Your task to perform on an android device: Search for Italian restaurants on Maps Image 0: 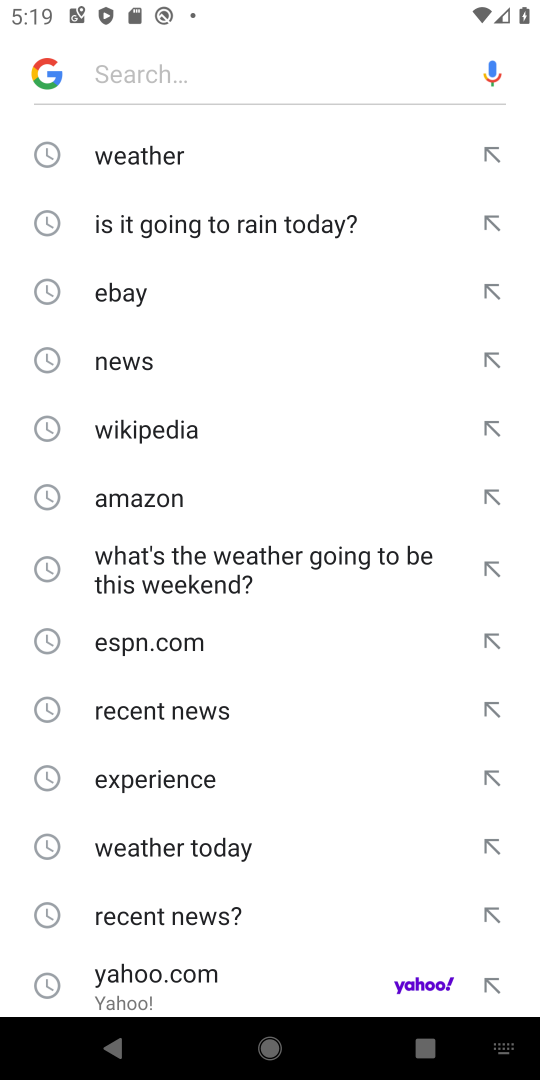
Step 0: press home button
Your task to perform on an android device: Search for Italian restaurants on Maps Image 1: 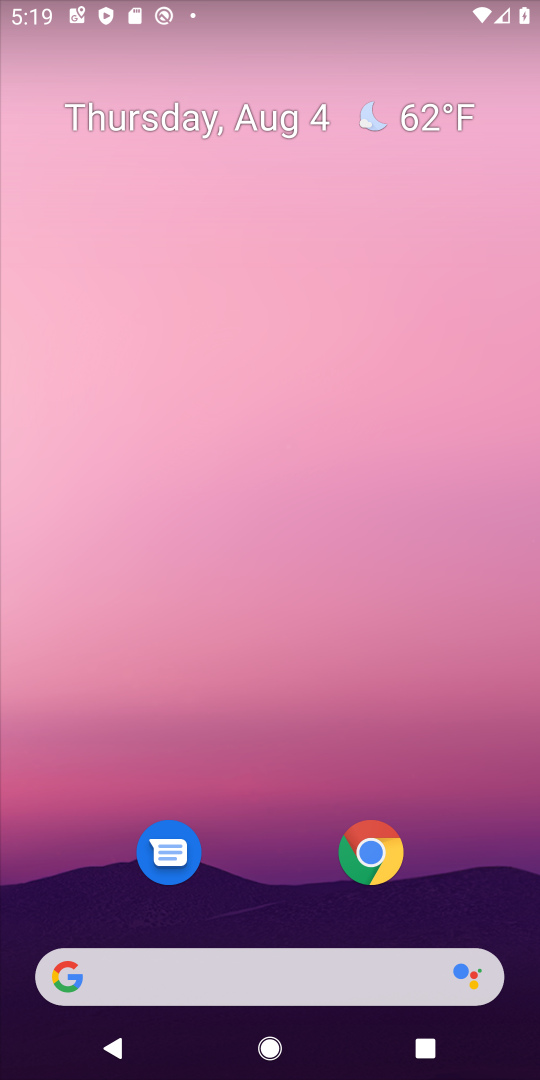
Step 1: click (288, 177)
Your task to perform on an android device: Search for Italian restaurants on Maps Image 2: 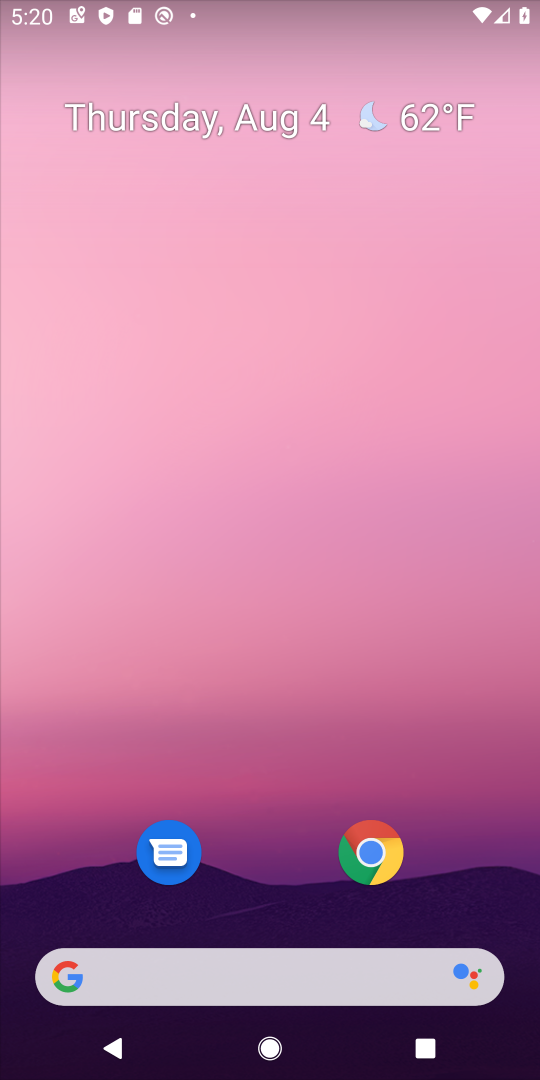
Step 2: drag from (278, 925) to (242, 319)
Your task to perform on an android device: Search for Italian restaurants on Maps Image 3: 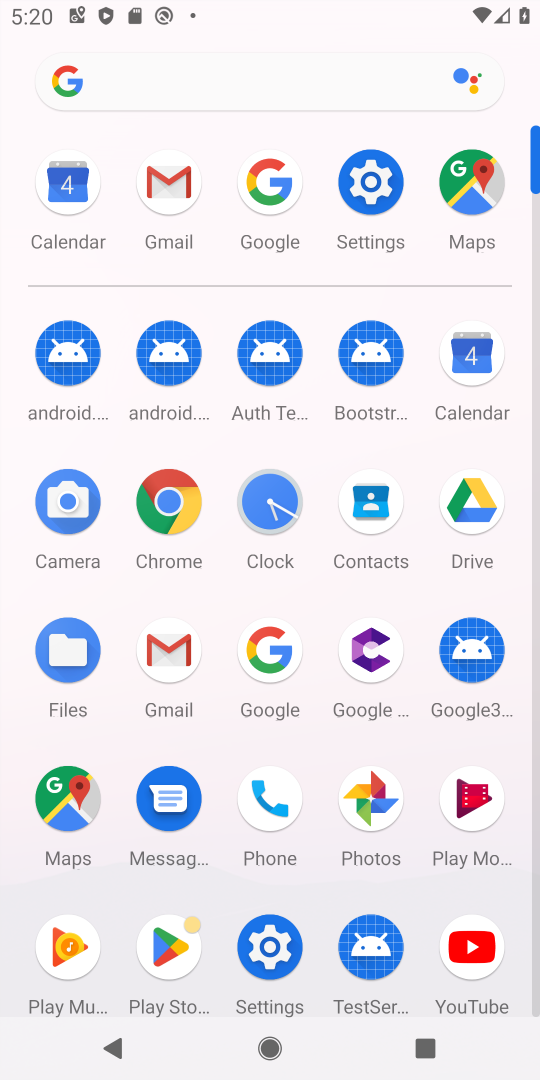
Step 3: click (63, 792)
Your task to perform on an android device: Search for Italian restaurants on Maps Image 4: 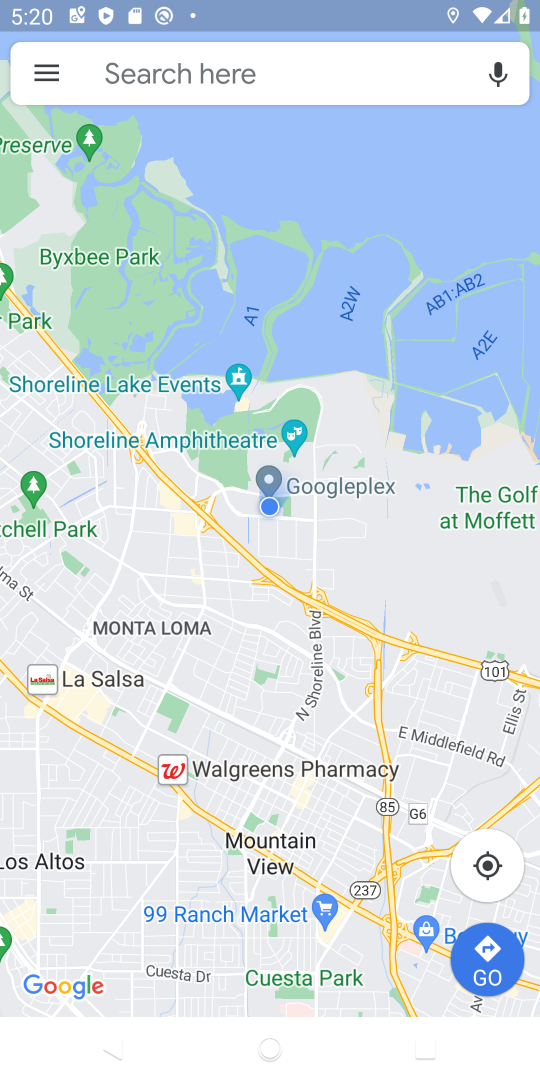
Step 4: click (222, 68)
Your task to perform on an android device: Search for Italian restaurants on Maps Image 5: 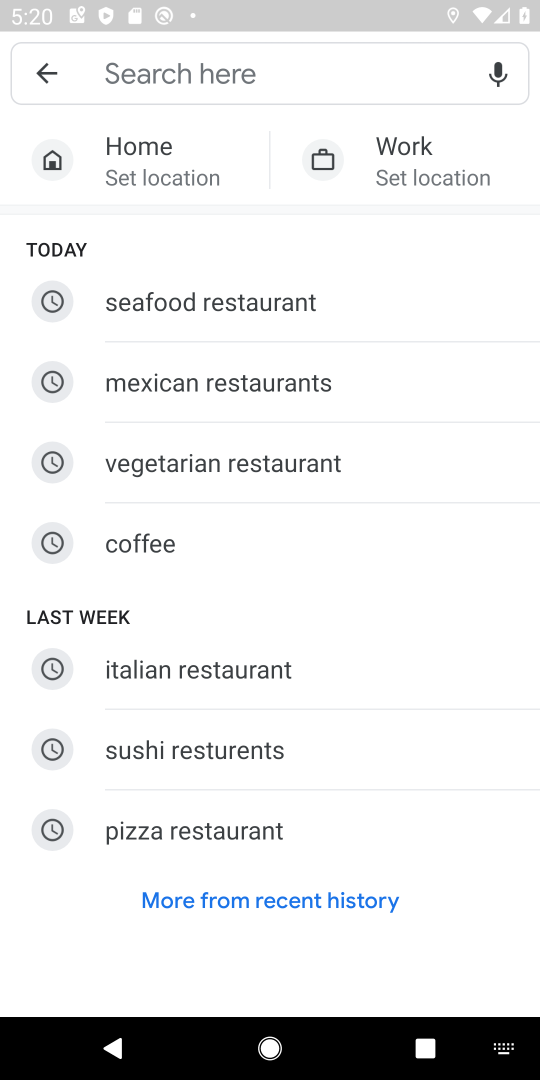
Step 5: type "Italian restaurants"
Your task to perform on an android device: Search for Italian restaurants on Maps Image 6: 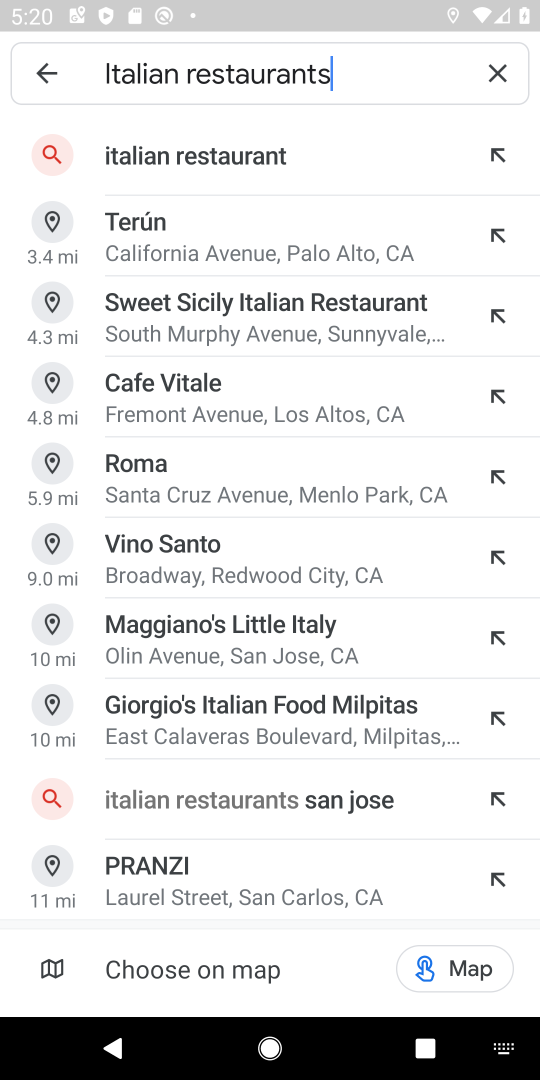
Step 6: click (247, 157)
Your task to perform on an android device: Search for Italian restaurants on Maps Image 7: 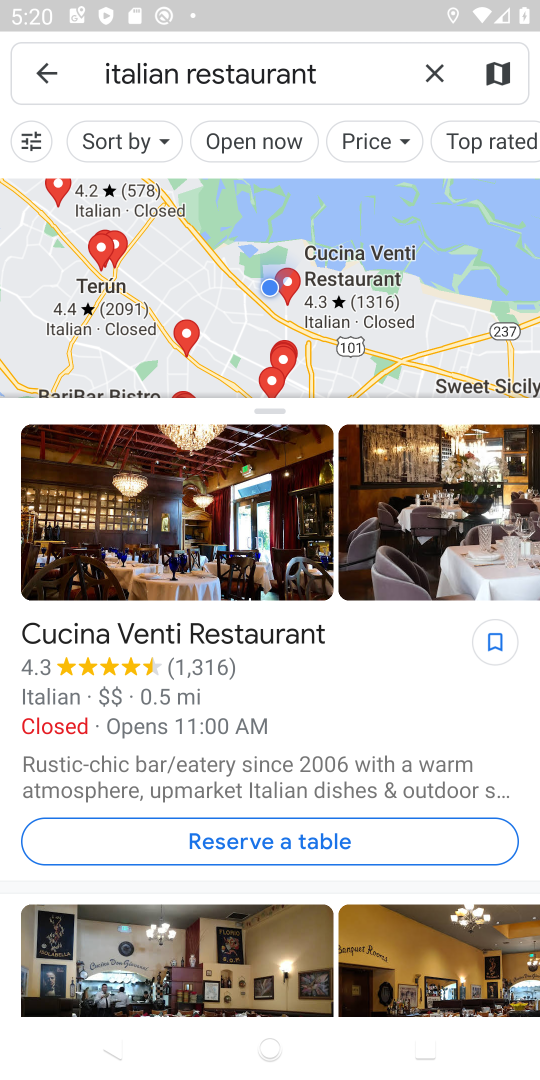
Step 7: task complete